Your task to perform on an android device: What's the latest news in tech? Image 0: 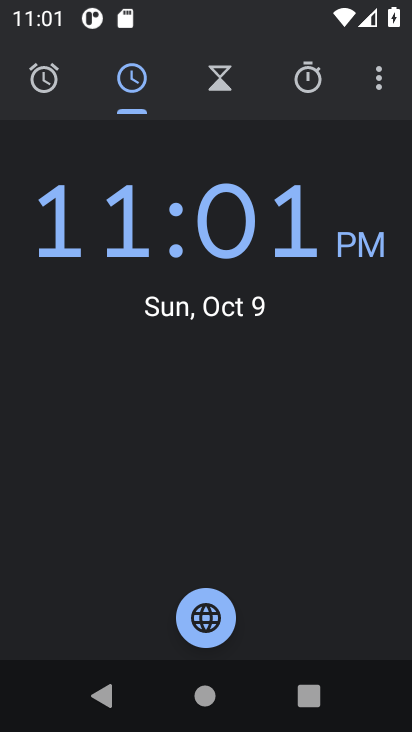
Step 0: press home button
Your task to perform on an android device: What's the latest news in tech? Image 1: 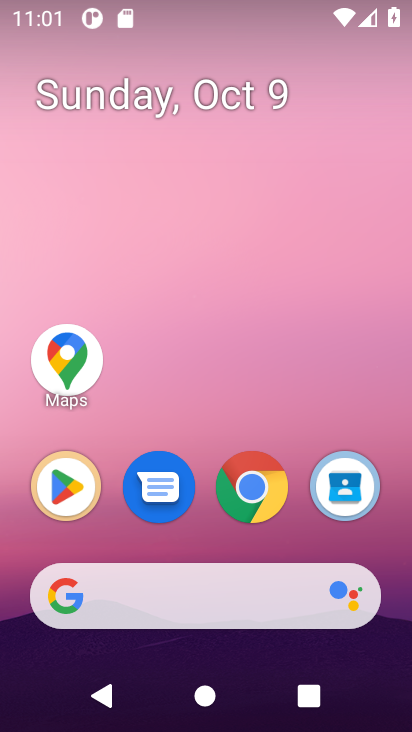
Step 1: click (258, 495)
Your task to perform on an android device: What's the latest news in tech? Image 2: 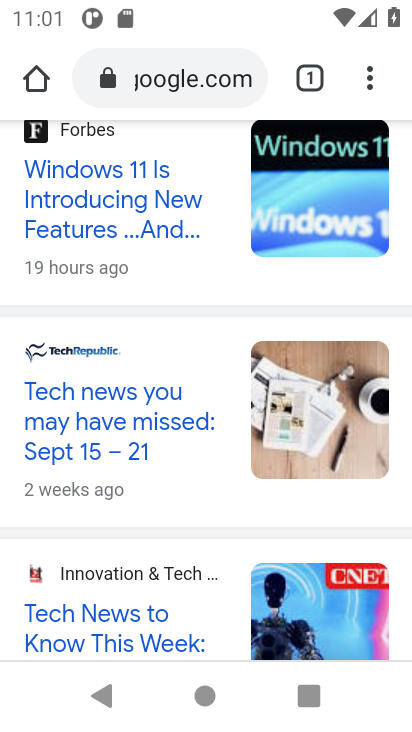
Step 2: click (195, 94)
Your task to perform on an android device: What's the latest news in tech? Image 3: 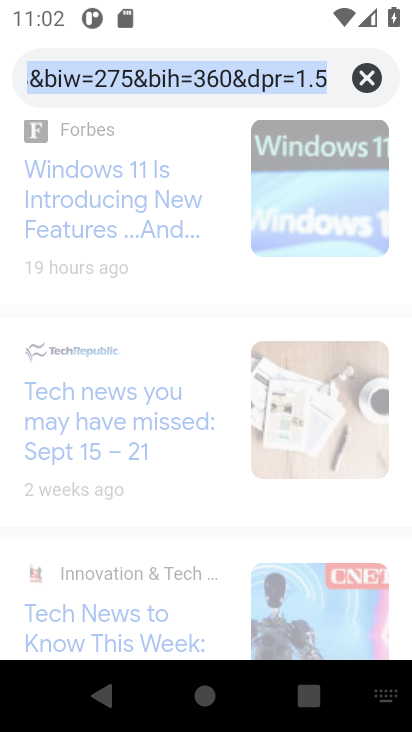
Step 3: type "latest news in tech"
Your task to perform on an android device: What's the latest news in tech? Image 4: 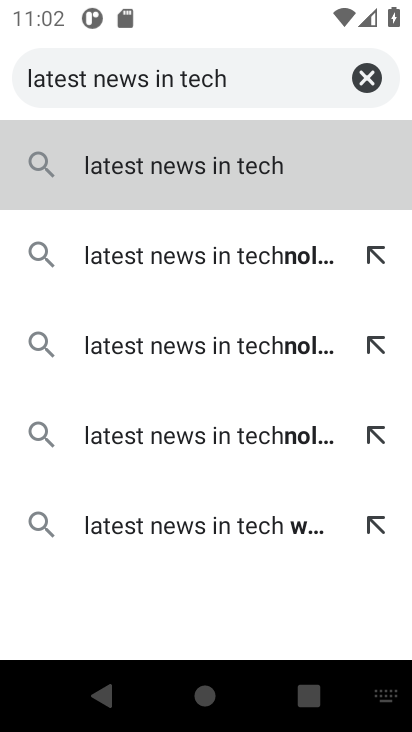
Step 4: press enter
Your task to perform on an android device: What's the latest news in tech? Image 5: 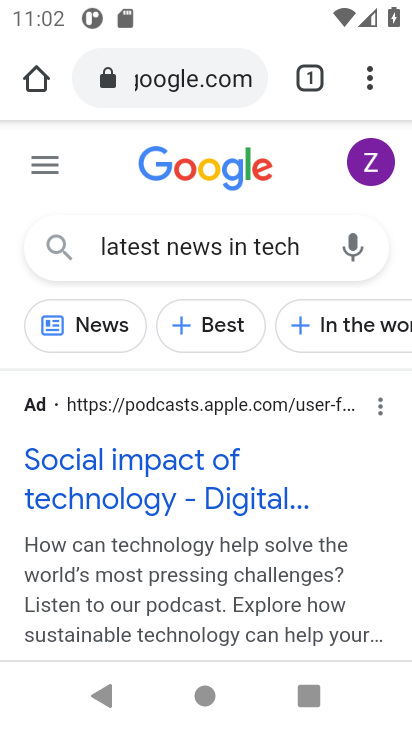
Step 5: drag from (236, 587) to (238, 204)
Your task to perform on an android device: What's the latest news in tech? Image 6: 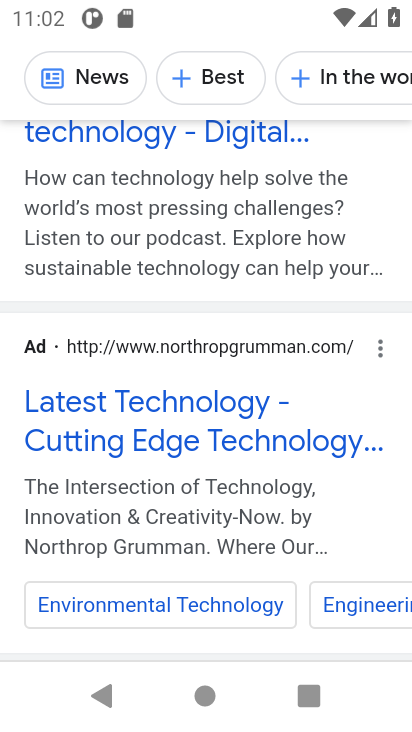
Step 6: drag from (287, 551) to (288, 396)
Your task to perform on an android device: What's the latest news in tech? Image 7: 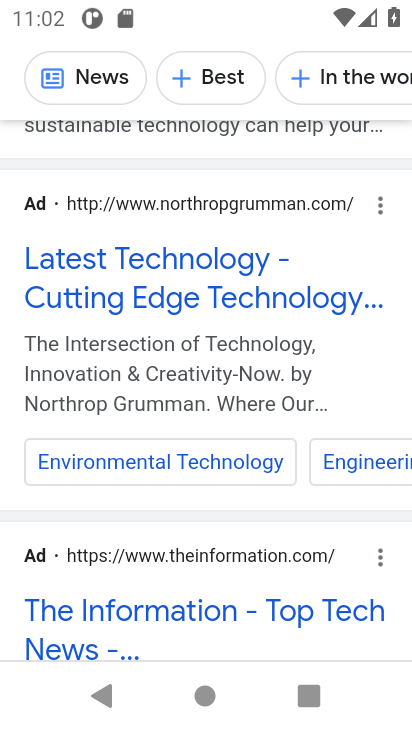
Step 7: drag from (272, 290) to (269, 229)
Your task to perform on an android device: What's the latest news in tech? Image 8: 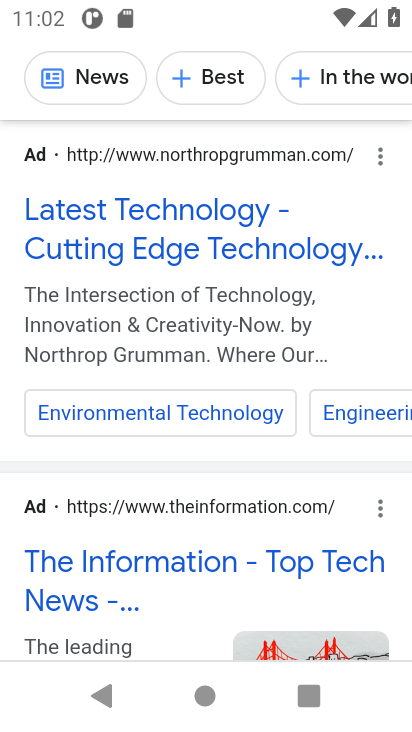
Step 8: drag from (274, 548) to (267, 190)
Your task to perform on an android device: What's the latest news in tech? Image 9: 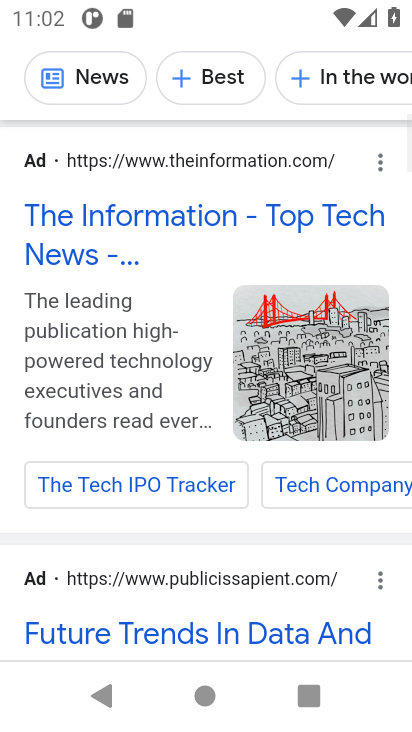
Step 9: drag from (212, 610) to (233, 661)
Your task to perform on an android device: What's the latest news in tech? Image 10: 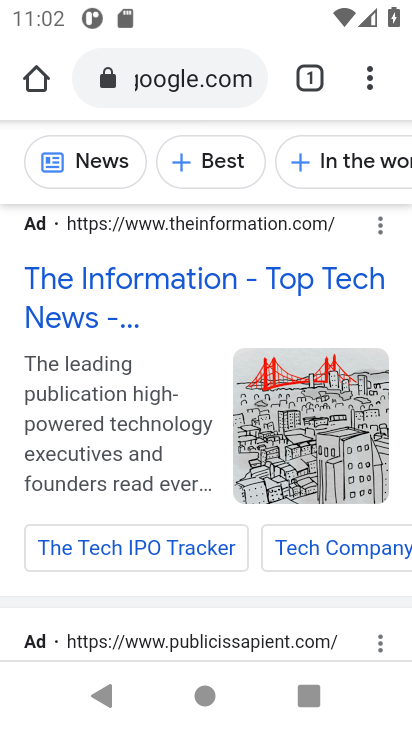
Step 10: drag from (220, 235) to (263, 589)
Your task to perform on an android device: What's the latest news in tech? Image 11: 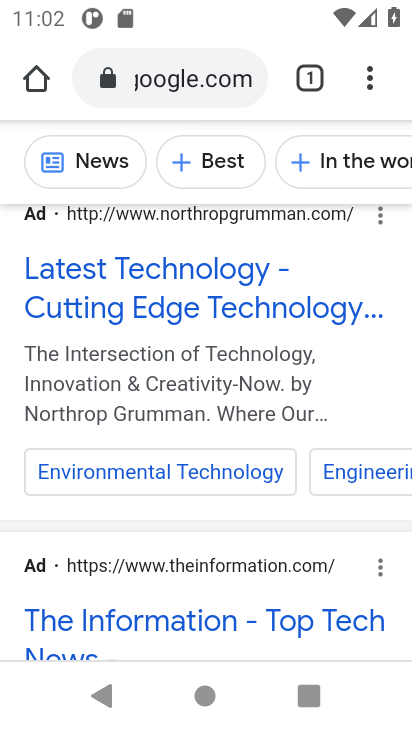
Step 11: drag from (255, 278) to (269, 571)
Your task to perform on an android device: What's the latest news in tech? Image 12: 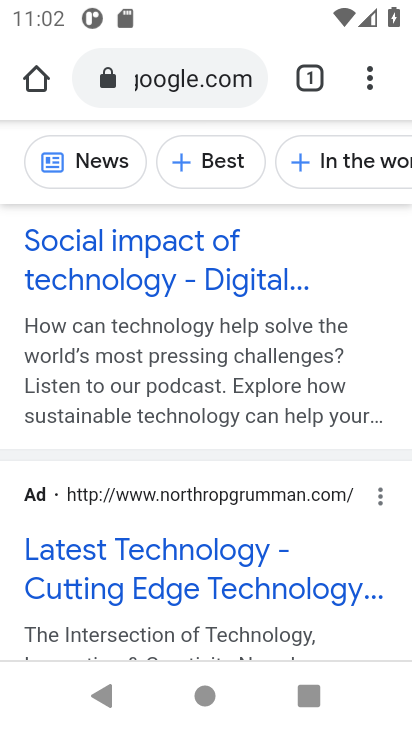
Step 12: drag from (221, 290) to (246, 559)
Your task to perform on an android device: What's the latest news in tech? Image 13: 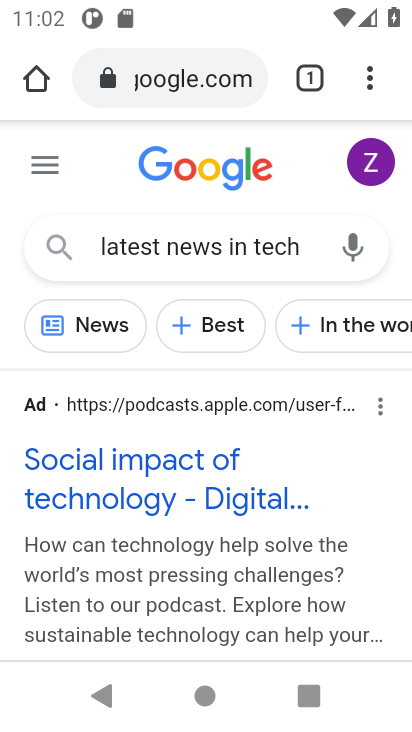
Step 13: click (84, 331)
Your task to perform on an android device: What's the latest news in tech? Image 14: 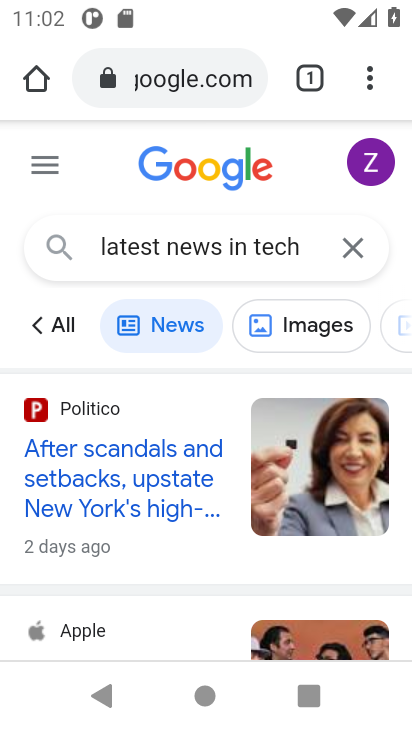
Step 14: task complete